Your task to perform on an android device: toggle show notifications on the lock screen Image 0: 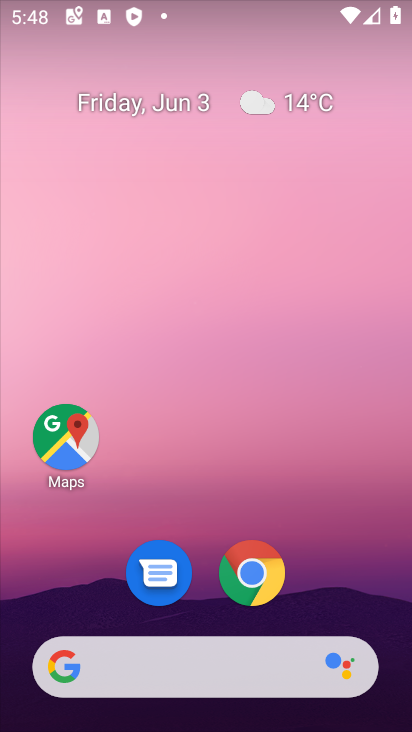
Step 0: drag from (307, 661) to (315, 91)
Your task to perform on an android device: toggle show notifications on the lock screen Image 1: 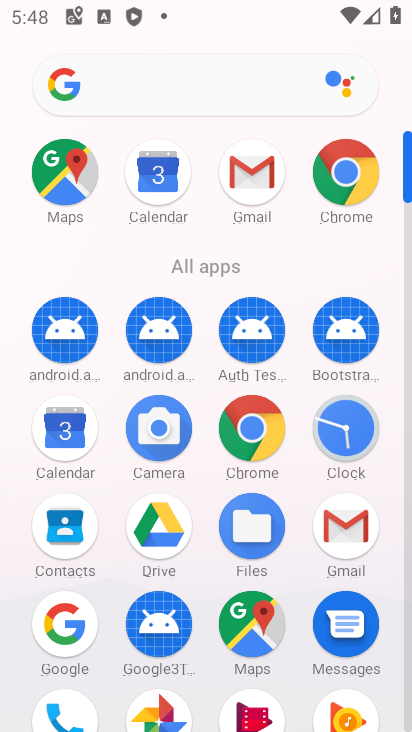
Step 1: drag from (315, 634) to (302, 298)
Your task to perform on an android device: toggle show notifications on the lock screen Image 2: 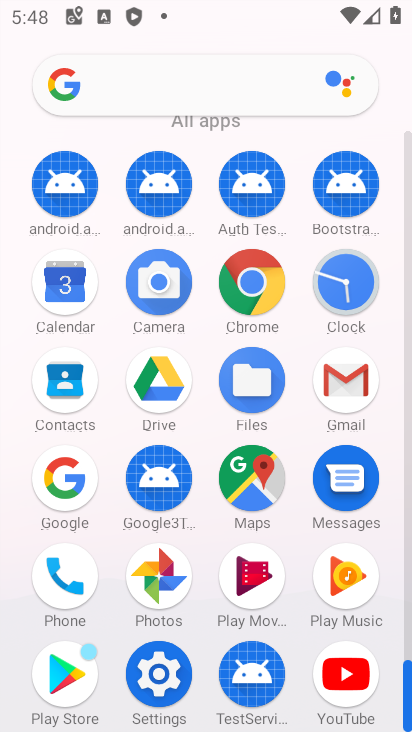
Step 2: click (149, 665)
Your task to perform on an android device: toggle show notifications on the lock screen Image 3: 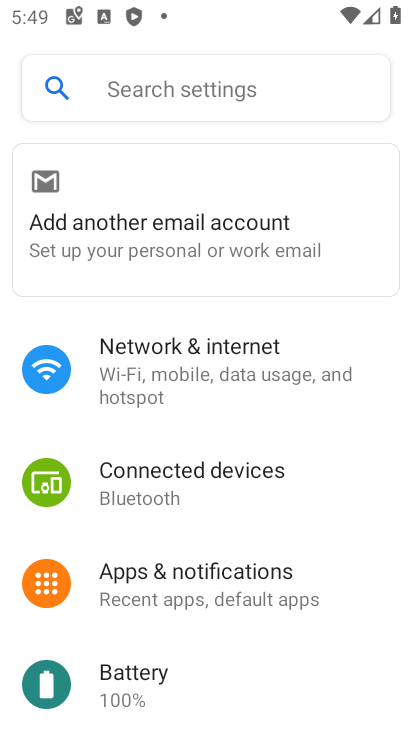
Step 3: click (214, 587)
Your task to perform on an android device: toggle show notifications on the lock screen Image 4: 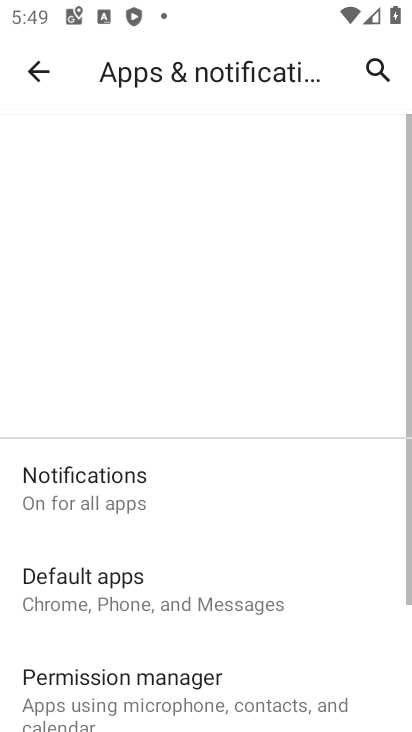
Step 4: click (149, 499)
Your task to perform on an android device: toggle show notifications on the lock screen Image 5: 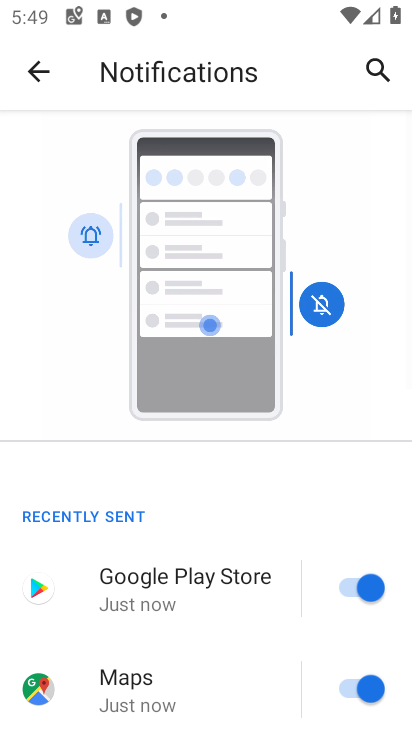
Step 5: drag from (164, 678) to (220, 112)
Your task to perform on an android device: toggle show notifications on the lock screen Image 6: 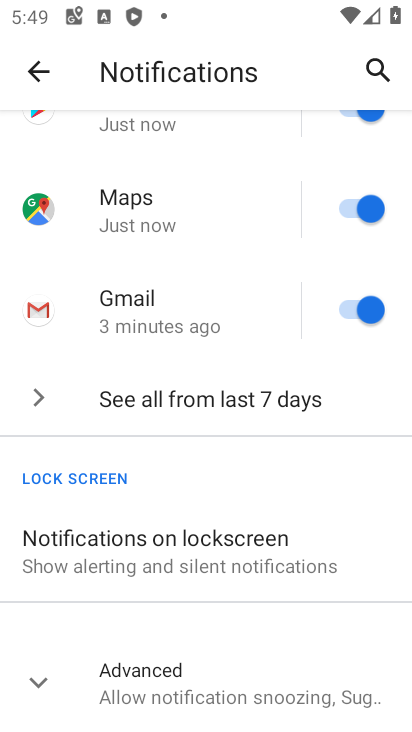
Step 6: click (230, 565)
Your task to perform on an android device: toggle show notifications on the lock screen Image 7: 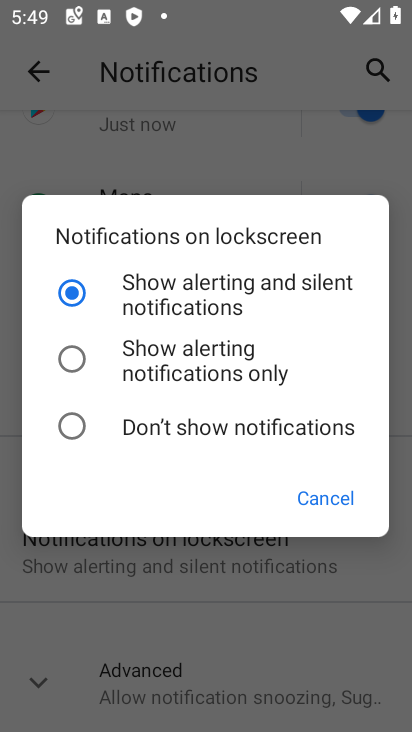
Step 7: click (61, 357)
Your task to perform on an android device: toggle show notifications on the lock screen Image 8: 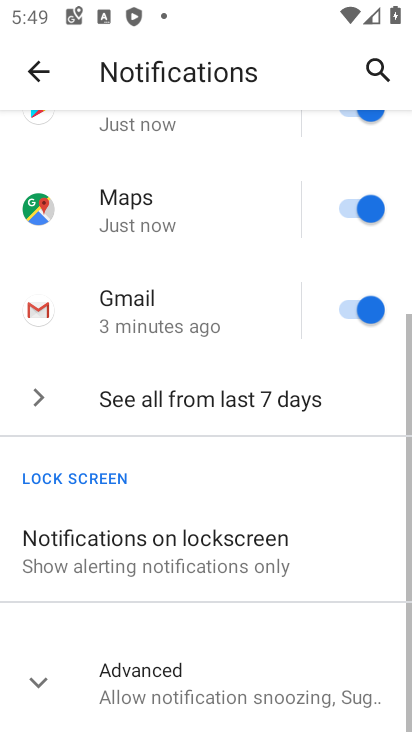
Step 8: task complete